Your task to perform on an android device: Open notification settings Image 0: 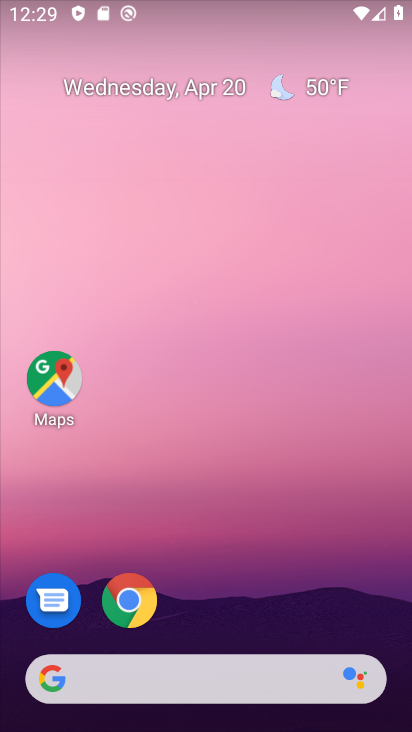
Step 0: drag from (251, 627) to (262, 188)
Your task to perform on an android device: Open notification settings Image 1: 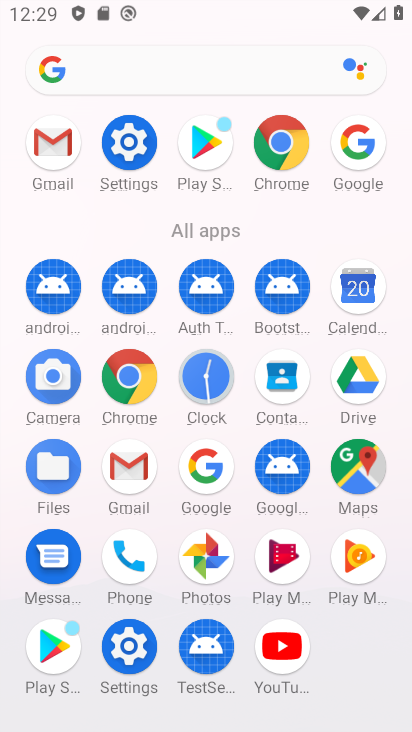
Step 1: click (125, 161)
Your task to perform on an android device: Open notification settings Image 2: 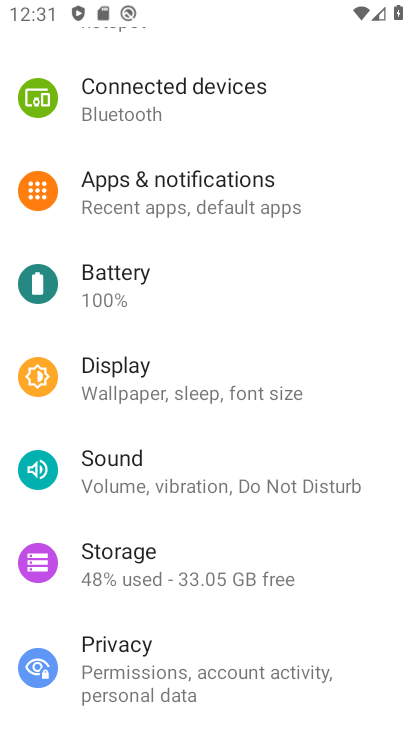
Step 2: click (236, 180)
Your task to perform on an android device: Open notification settings Image 3: 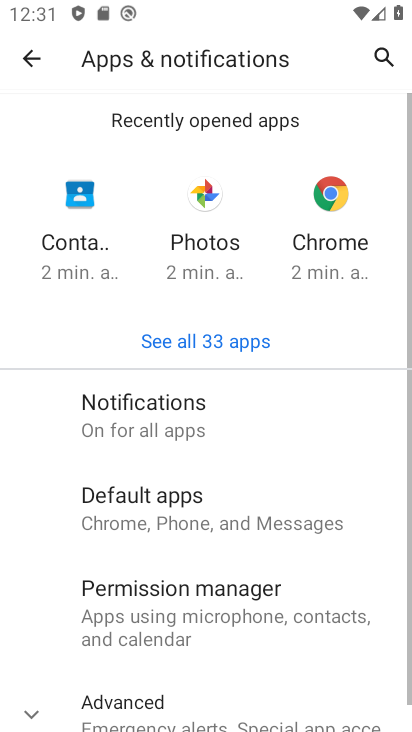
Step 3: task complete